Your task to perform on an android device: Go to Yahoo.com Image 0: 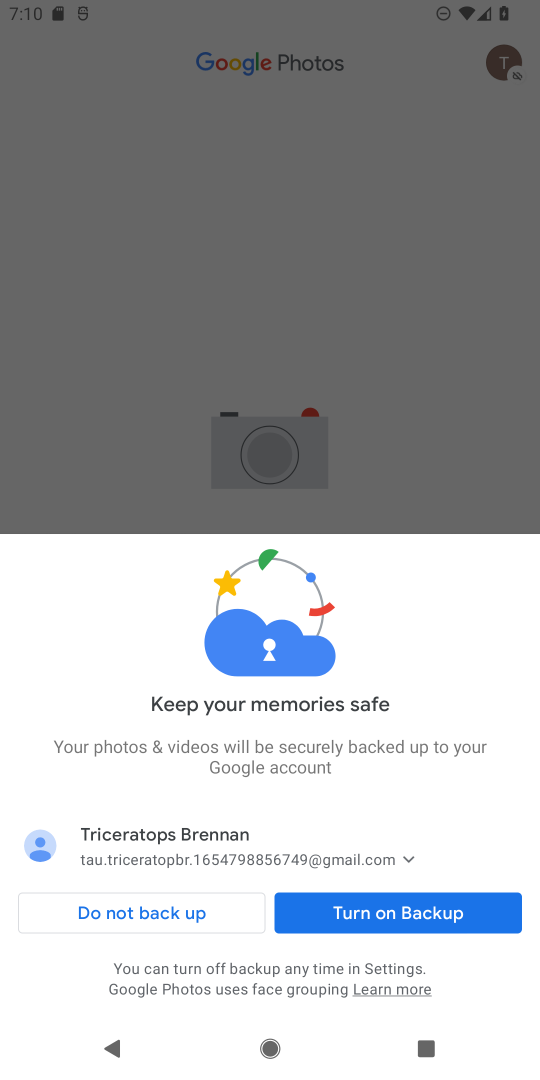
Step 0: press home button
Your task to perform on an android device: Go to Yahoo.com Image 1: 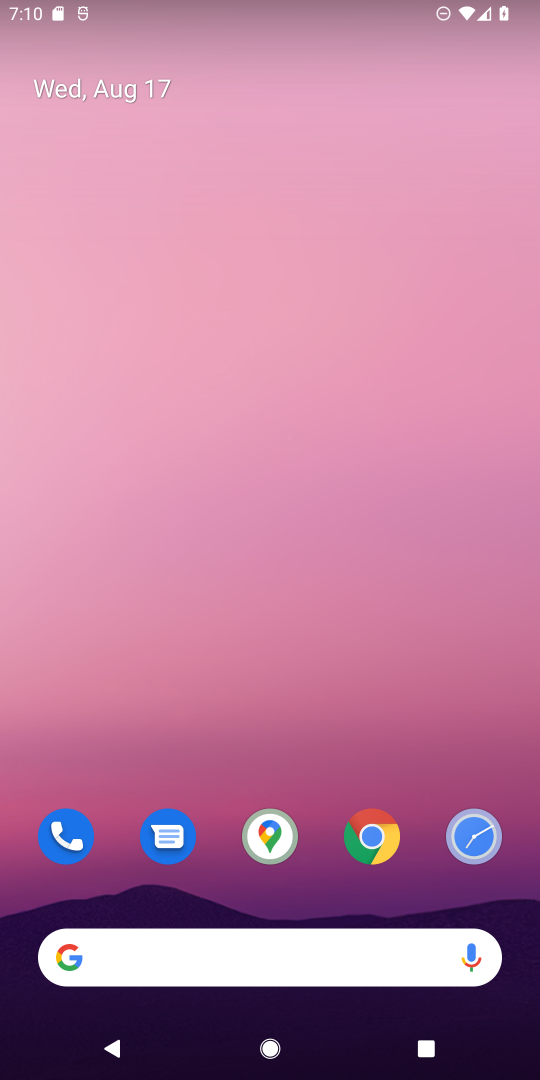
Step 1: drag from (163, 899) to (162, 393)
Your task to perform on an android device: Go to Yahoo.com Image 2: 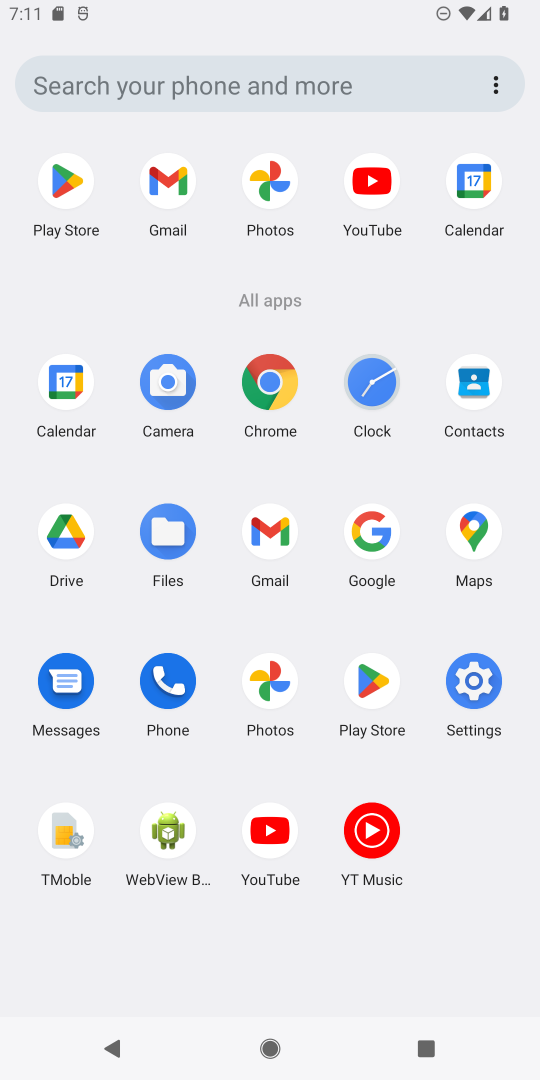
Step 2: click (284, 402)
Your task to perform on an android device: Go to Yahoo.com Image 3: 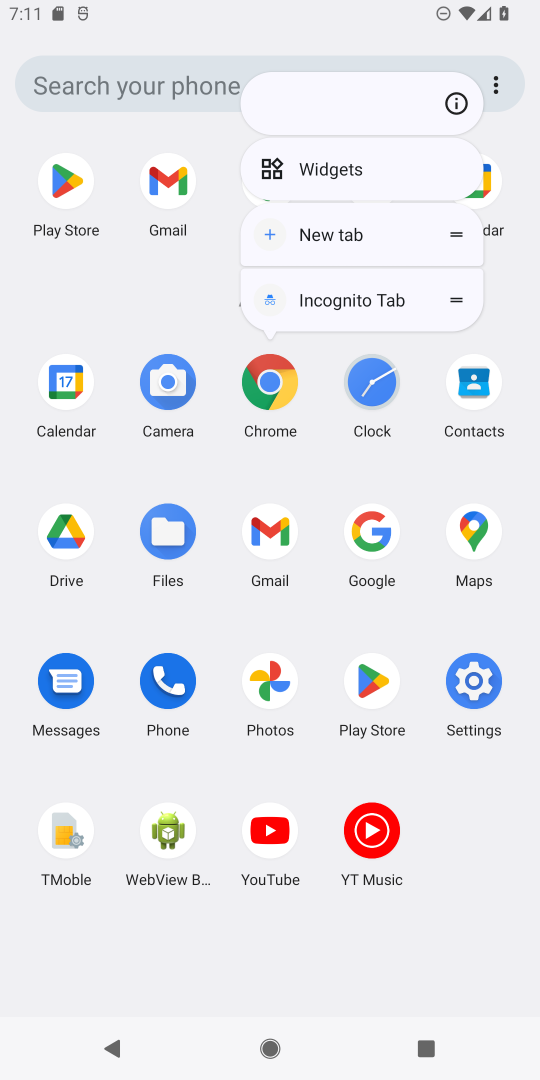
Step 3: click (279, 390)
Your task to perform on an android device: Go to Yahoo.com Image 4: 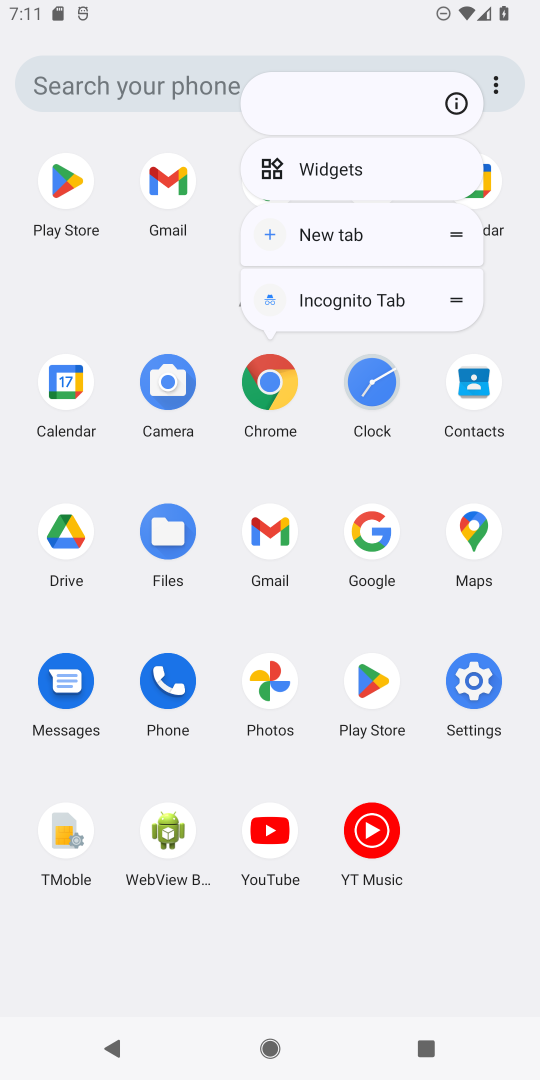
Step 4: click (276, 388)
Your task to perform on an android device: Go to Yahoo.com Image 5: 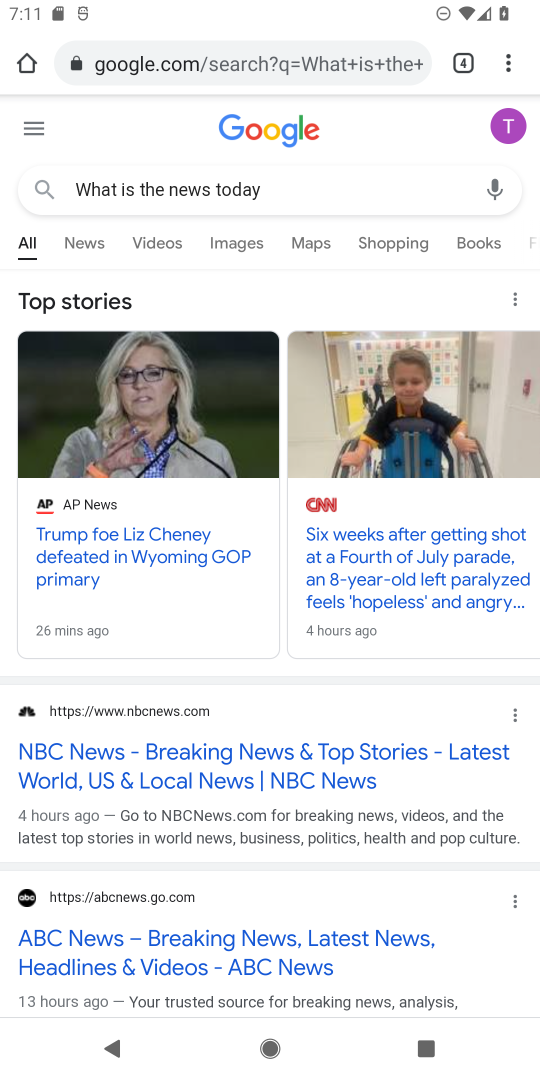
Step 5: click (494, 44)
Your task to perform on an android device: Go to Yahoo.com Image 6: 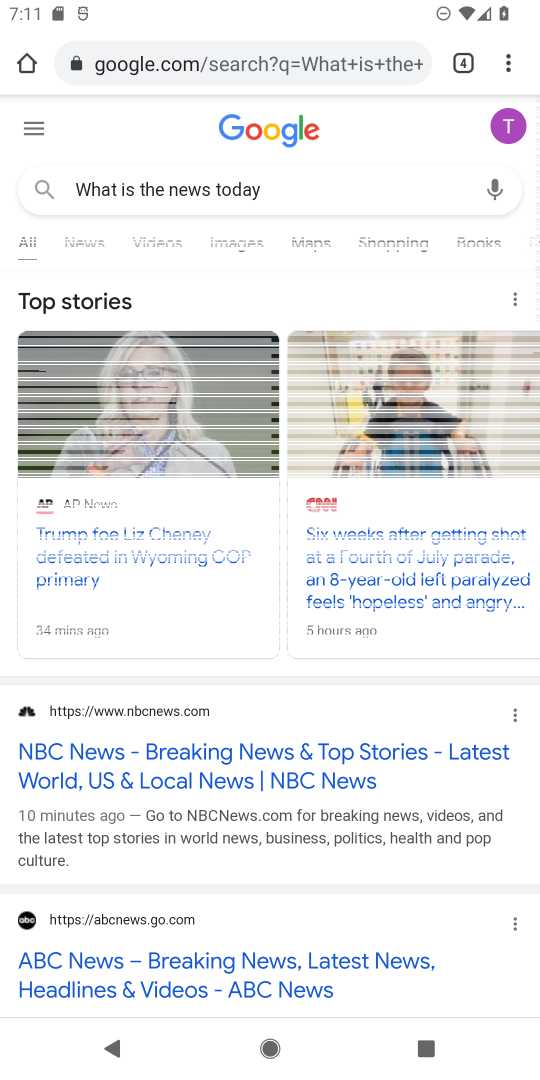
Step 6: click (505, 69)
Your task to perform on an android device: Go to Yahoo.com Image 7: 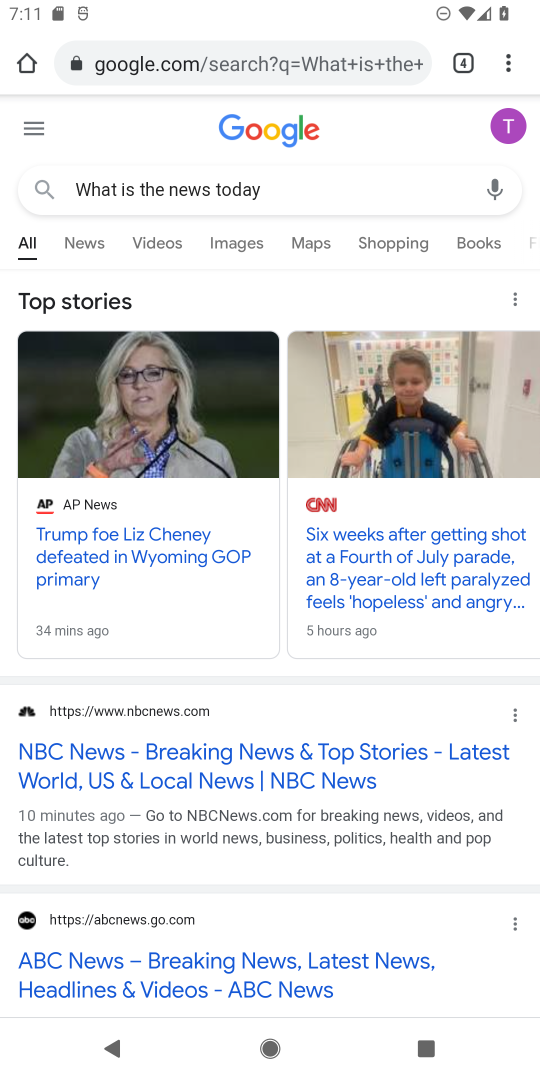
Step 7: click (505, 63)
Your task to perform on an android device: Go to Yahoo.com Image 8: 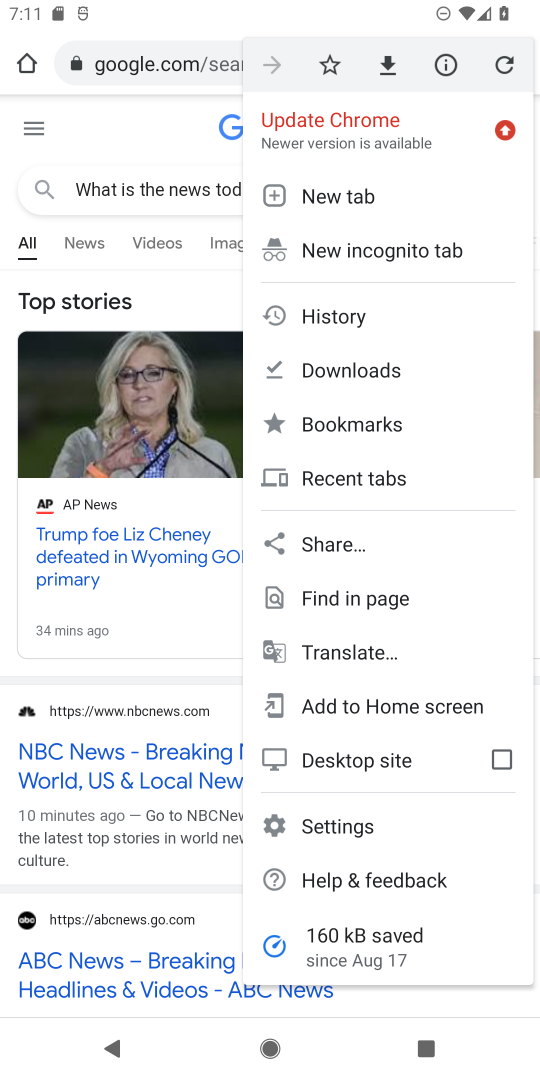
Step 8: click (308, 205)
Your task to perform on an android device: Go to Yahoo.com Image 9: 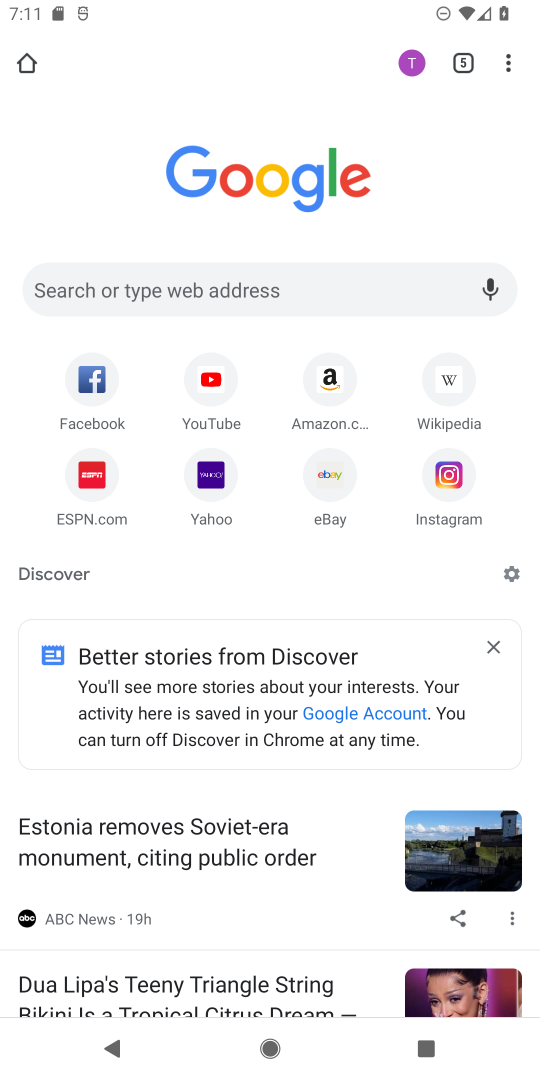
Step 9: click (213, 459)
Your task to perform on an android device: Go to Yahoo.com Image 10: 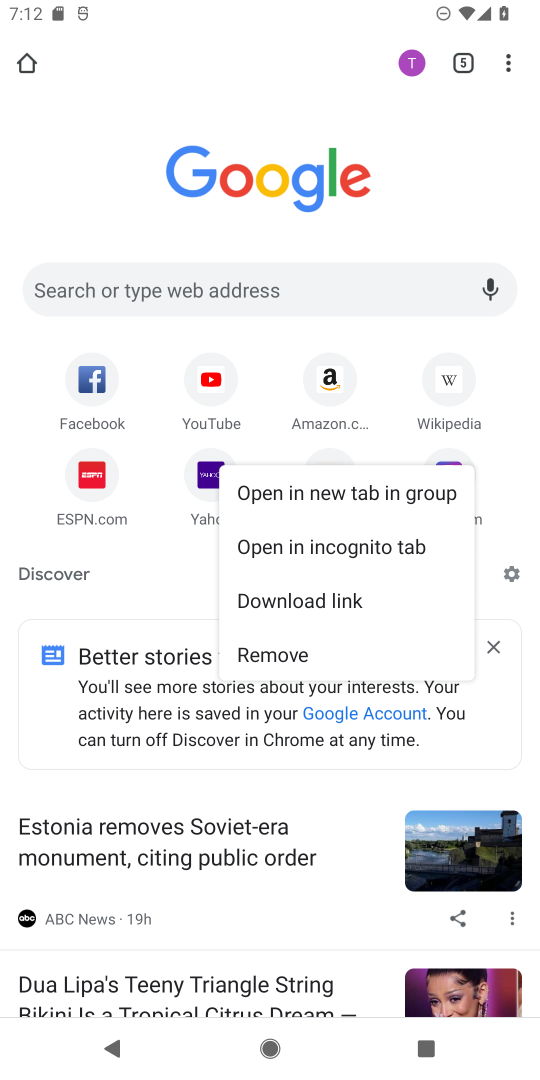
Step 10: click (205, 484)
Your task to perform on an android device: Go to Yahoo.com Image 11: 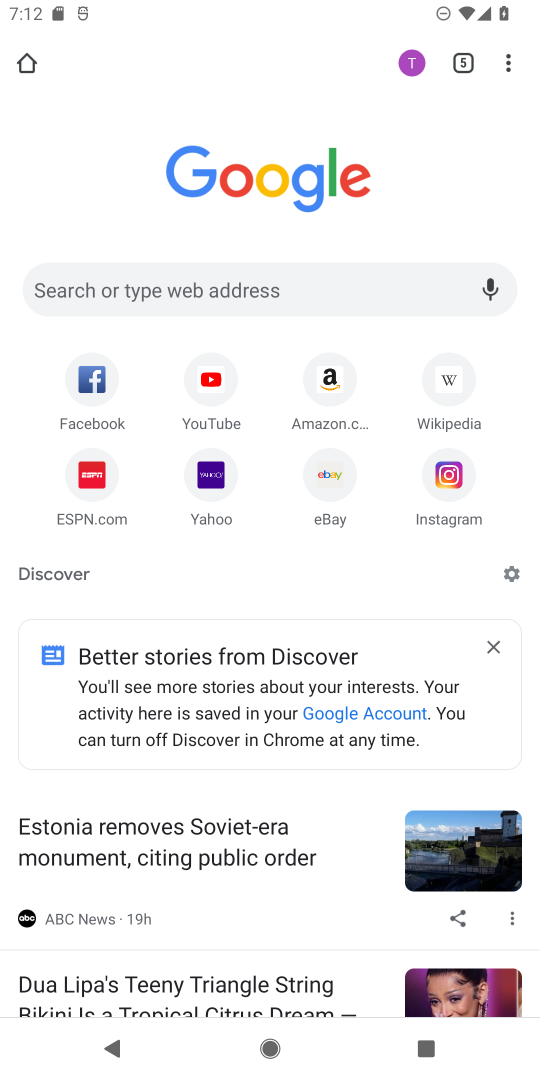
Step 11: click (207, 484)
Your task to perform on an android device: Go to Yahoo.com Image 12: 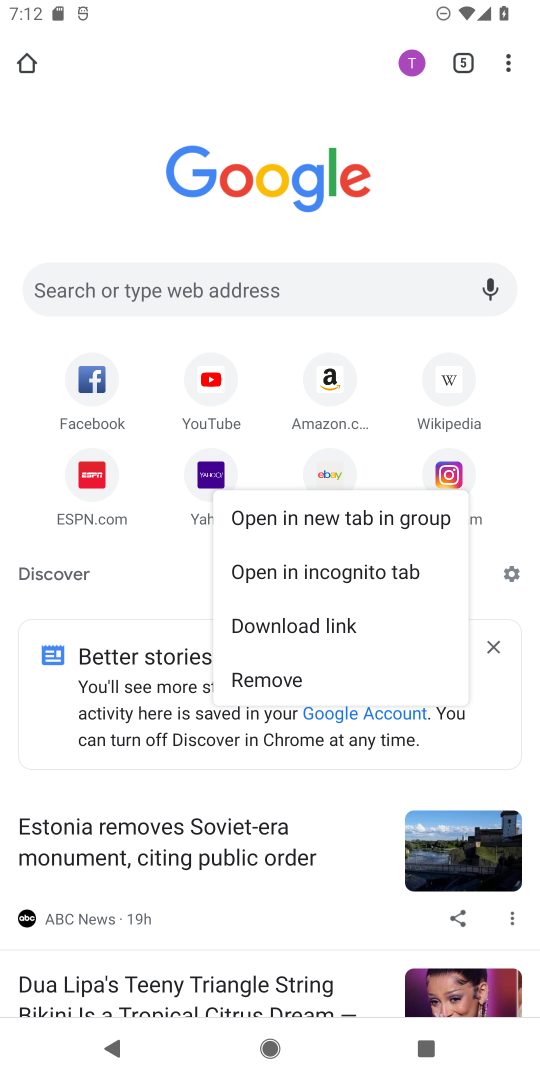
Step 12: click (232, 512)
Your task to perform on an android device: Go to Yahoo.com Image 13: 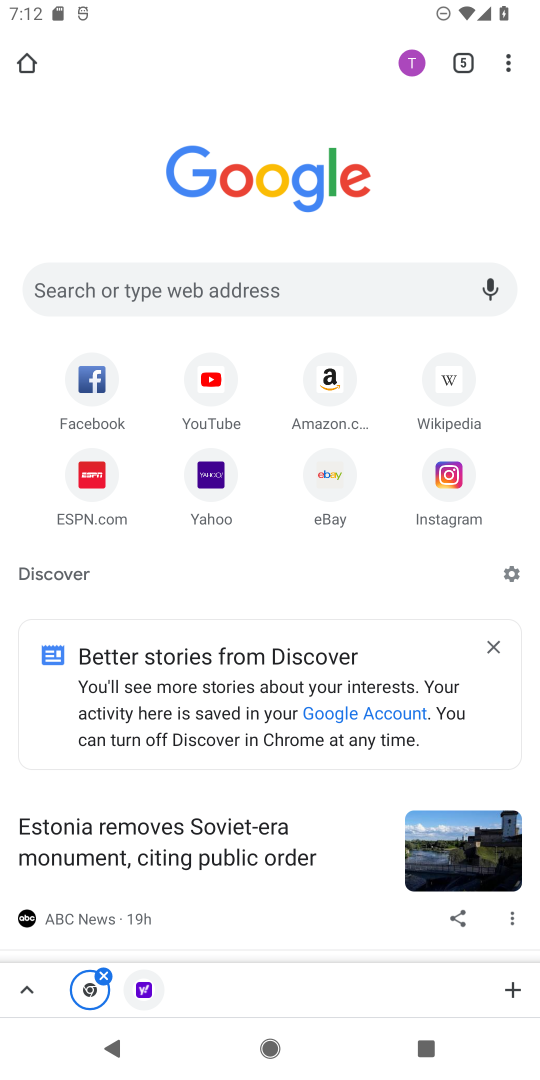
Step 13: click (216, 497)
Your task to perform on an android device: Go to Yahoo.com Image 14: 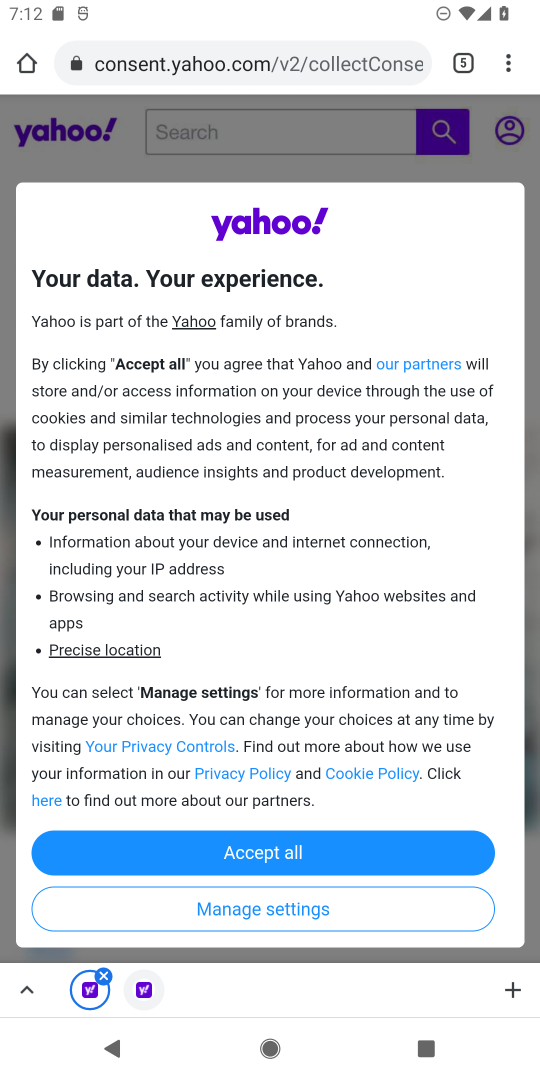
Step 14: task complete